Your task to perform on an android device: check data usage Image 0: 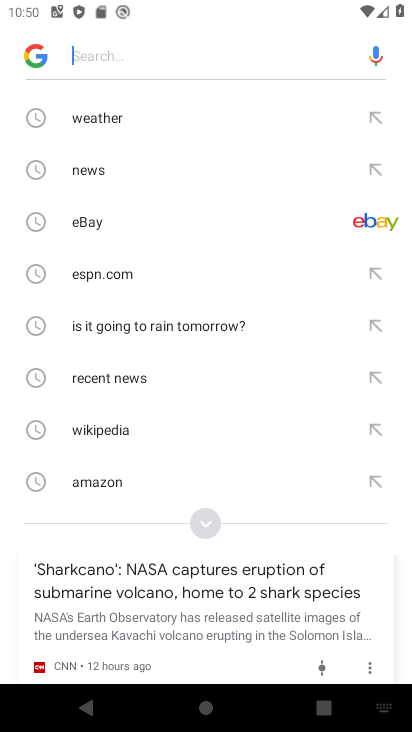
Step 0: press back button
Your task to perform on an android device: check data usage Image 1: 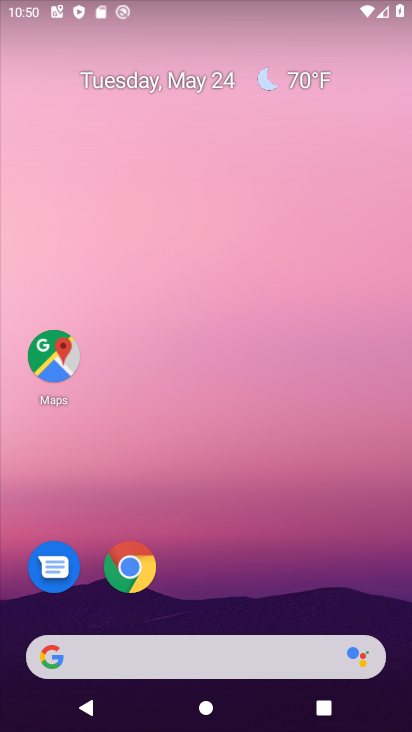
Step 1: drag from (396, 681) to (411, 56)
Your task to perform on an android device: check data usage Image 2: 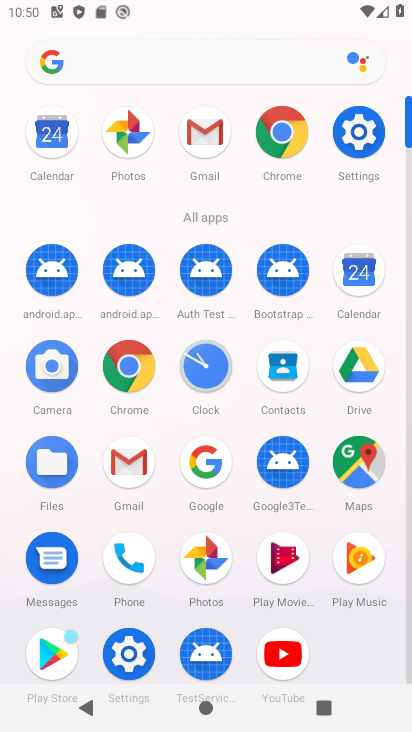
Step 2: click (356, 137)
Your task to perform on an android device: check data usage Image 3: 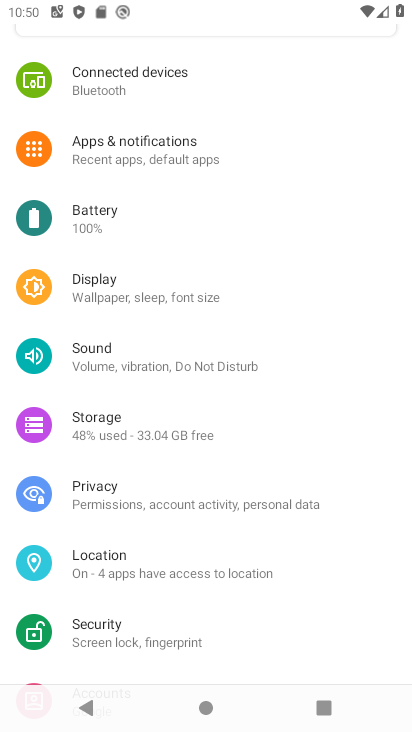
Step 3: drag from (307, 122) to (341, 509)
Your task to perform on an android device: check data usage Image 4: 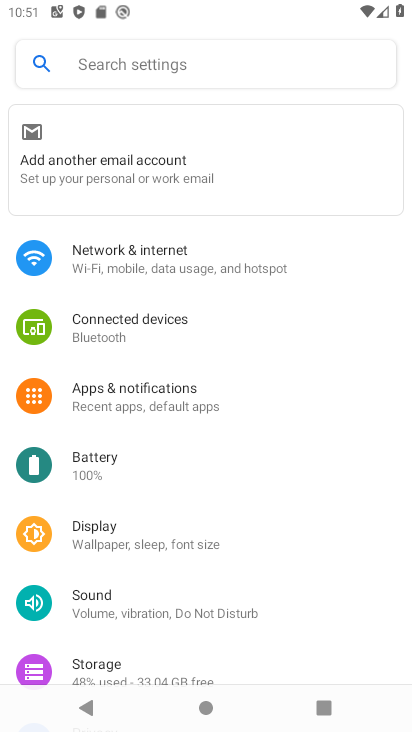
Step 4: click (139, 263)
Your task to perform on an android device: check data usage Image 5: 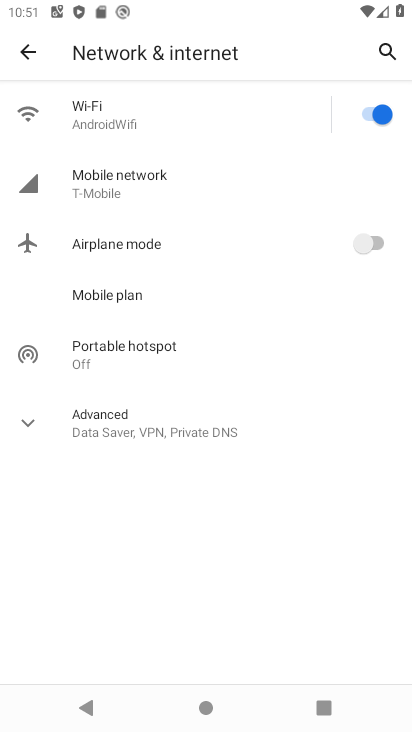
Step 5: click (115, 172)
Your task to perform on an android device: check data usage Image 6: 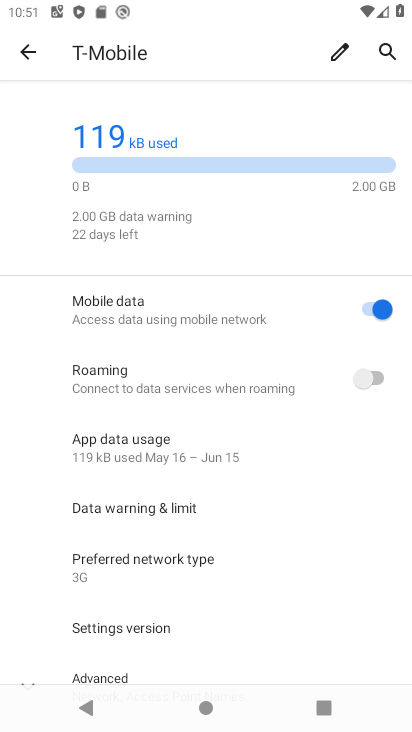
Step 6: task complete